Your task to perform on an android device: Open calendar and show me the first week of next month Image 0: 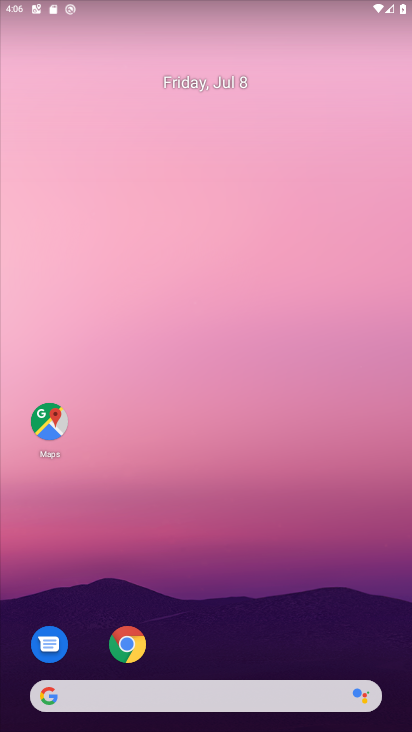
Step 0: drag from (376, 643) to (343, 200)
Your task to perform on an android device: Open calendar and show me the first week of next month Image 1: 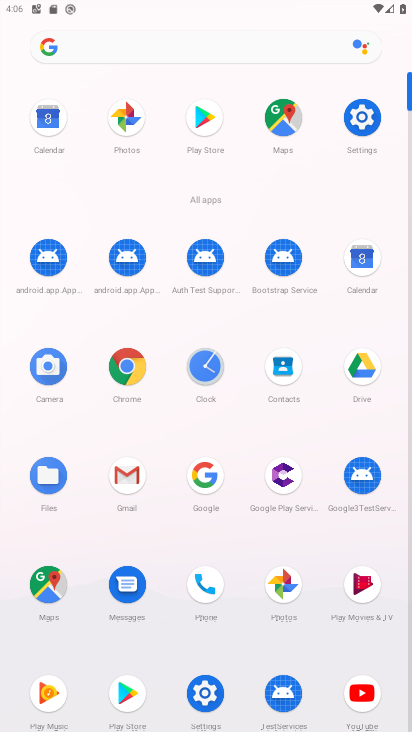
Step 1: click (360, 260)
Your task to perform on an android device: Open calendar and show me the first week of next month Image 2: 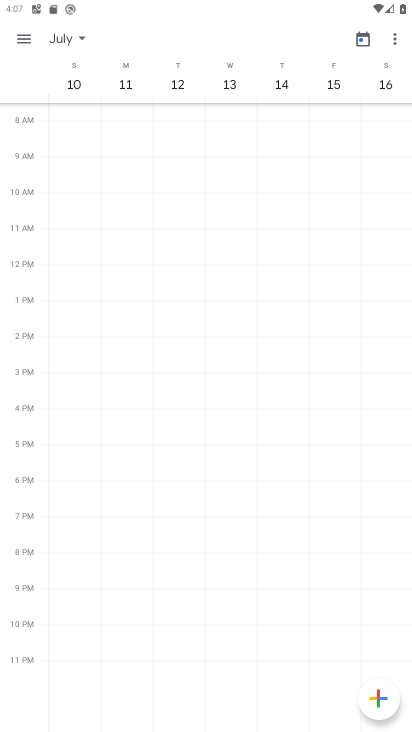
Step 2: click (85, 40)
Your task to perform on an android device: Open calendar and show me the first week of next month Image 3: 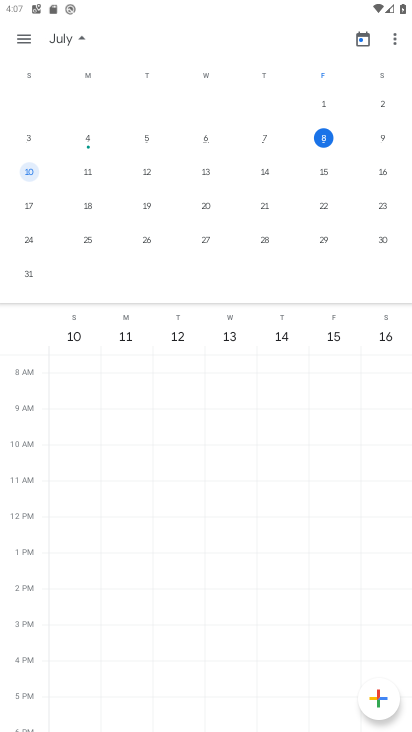
Step 3: drag from (383, 211) to (46, 210)
Your task to perform on an android device: Open calendar and show me the first week of next month Image 4: 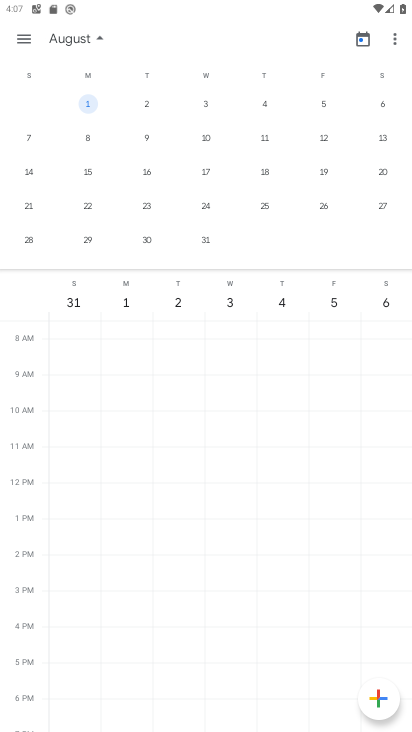
Step 4: click (25, 132)
Your task to perform on an android device: Open calendar and show me the first week of next month Image 5: 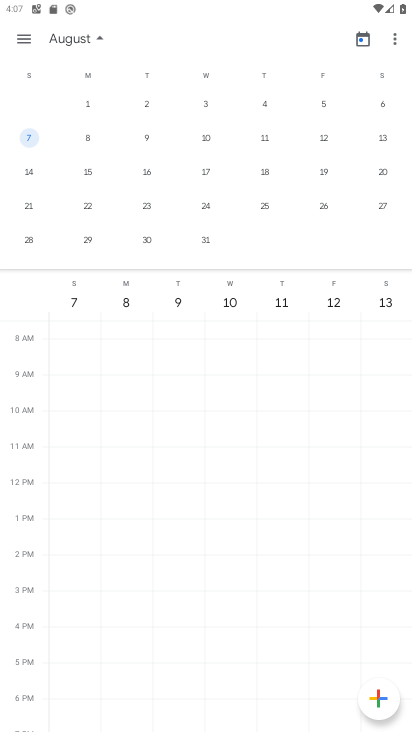
Step 5: task complete